Your task to perform on an android device: Open location settings Image 0: 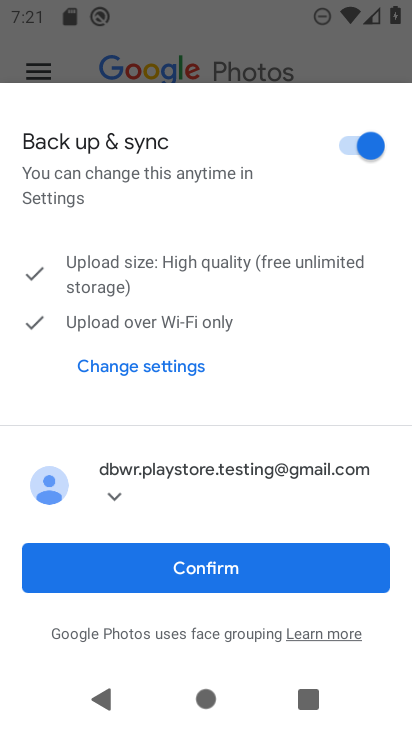
Step 0: press home button
Your task to perform on an android device: Open location settings Image 1: 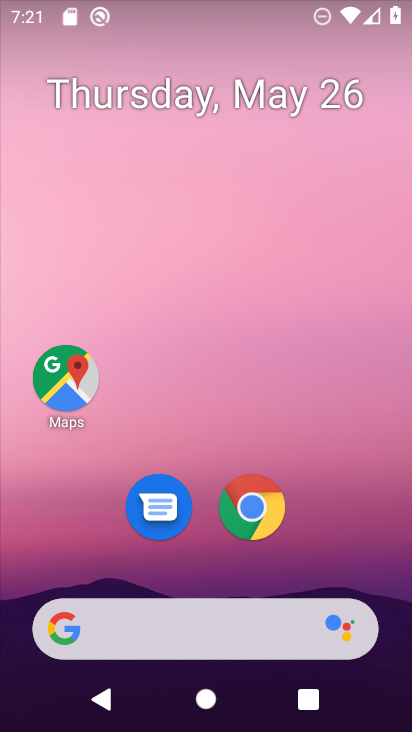
Step 1: drag from (200, 587) to (213, 6)
Your task to perform on an android device: Open location settings Image 2: 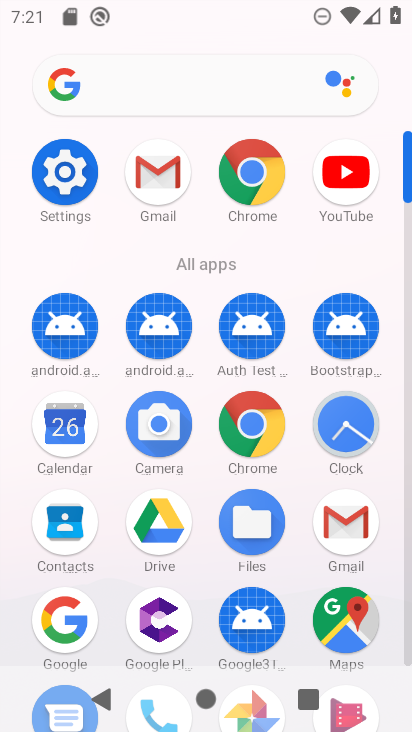
Step 2: click (62, 172)
Your task to perform on an android device: Open location settings Image 3: 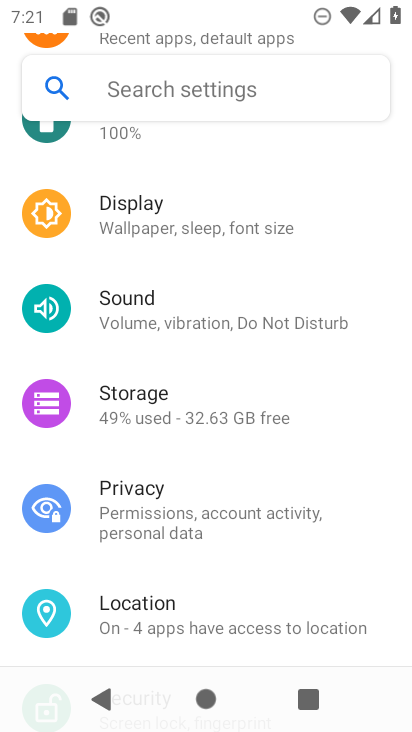
Step 3: click (170, 606)
Your task to perform on an android device: Open location settings Image 4: 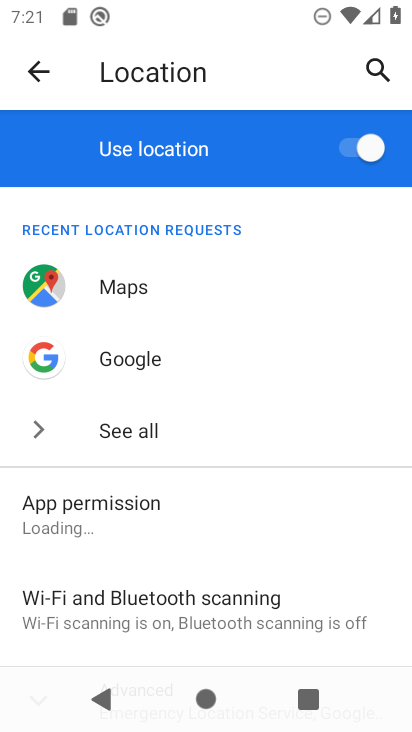
Step 4: task complete